Your task to perform on an android device: What is the recent news? Image 0: 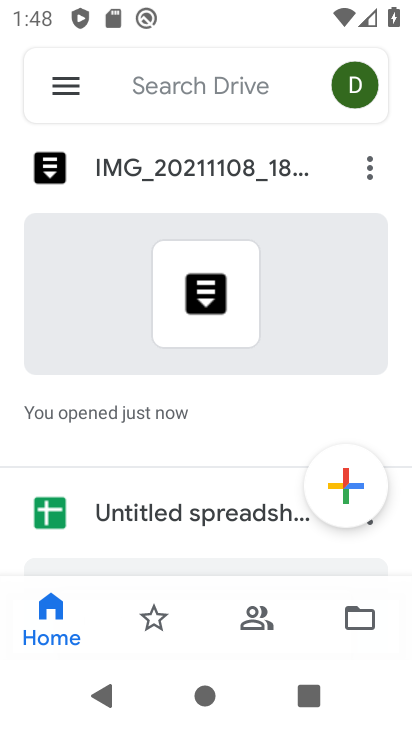
Step 0: press back button
Your task to perform on an android device: What is the recent news? Image 1: 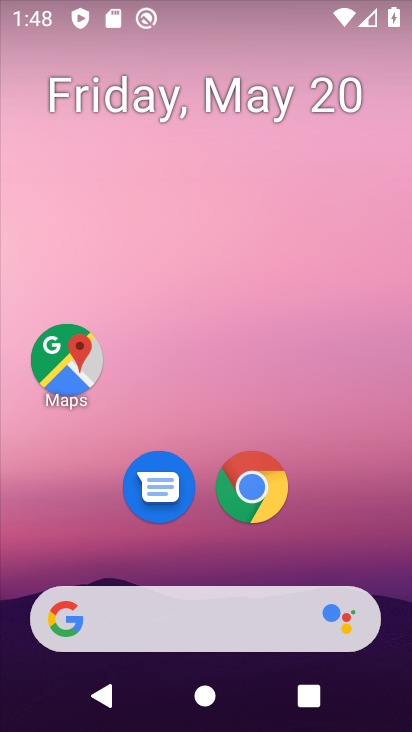
Step 1: task complete